Your task to perform on an android device: toggle data saver in the chrome app Image 0: 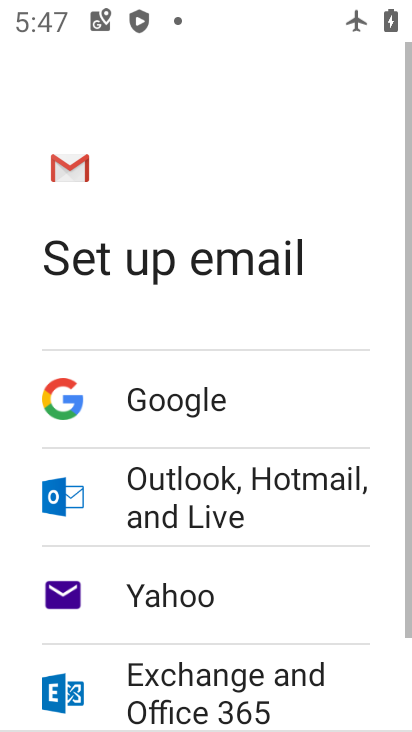
Step 0: press home button
Your task to perform on an android device: toggle data saver in the chrome app Image 1: 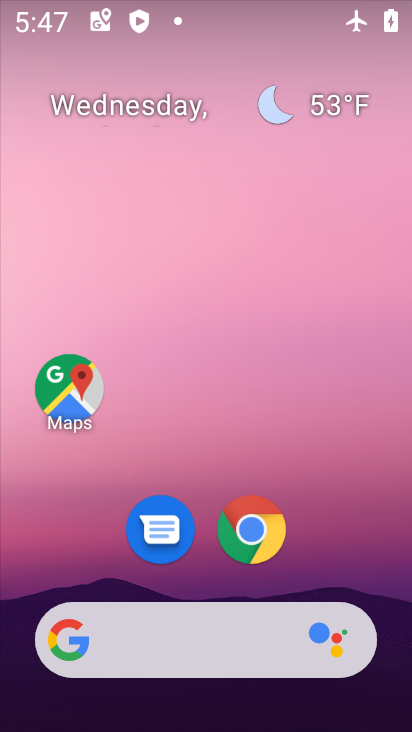
Step 1: drag from (205, 586) to (189, 351)
Your task to perform on an android device: toggle data saver in the chrome app Image 2: 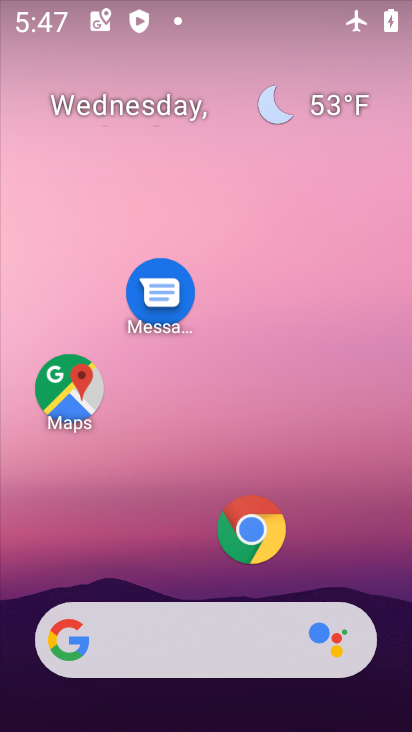
Step 2: click (253, 537)
Your task to perform on an android device: toggle data saver in the chrome app Image 3: 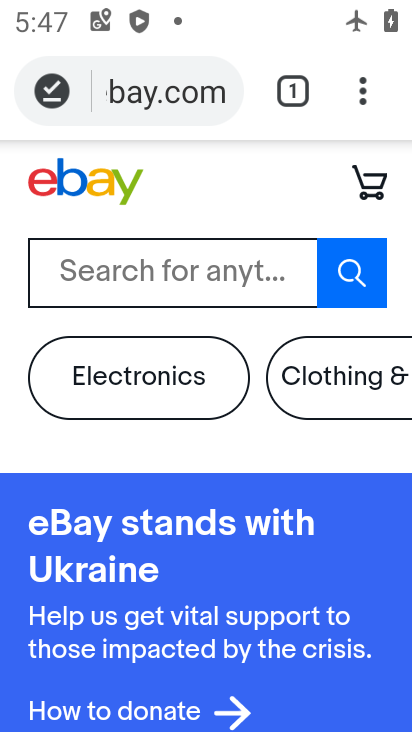
Step 3: click (365, 97)
Your task to perform on an android device: toggle data saver in the chrome app Image 4: 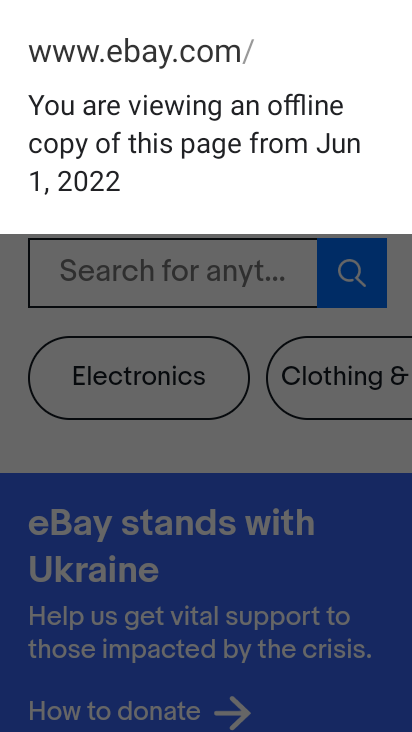
Step 4: click (281, 446)
Your task to perform on an android device: toggle data saver in the chrome app Image 5: 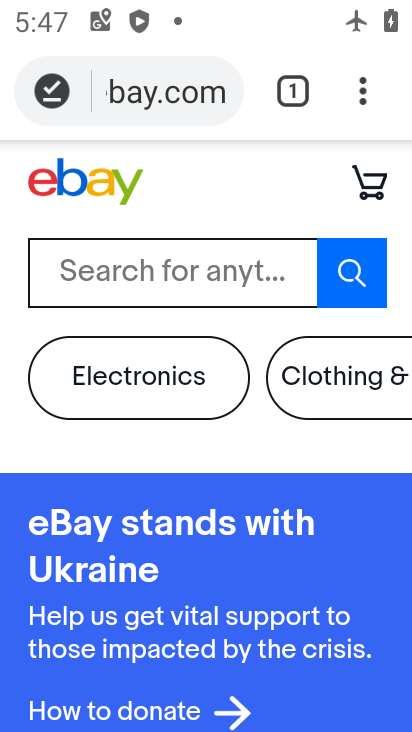
Step 5: click (358, 101)
Your task to perform on an android device: toggle data saver in the chrome app Image 6: 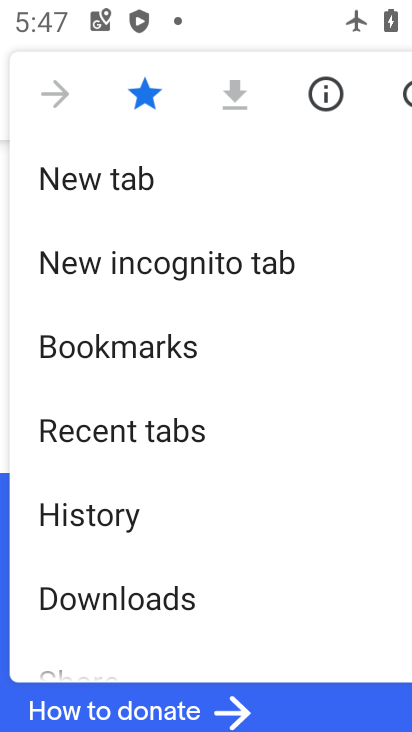
Step 6: drag from (145, 600) to (166, 372)
Your task to perform on an android device: toggle data saver in the chrome app Image 7: 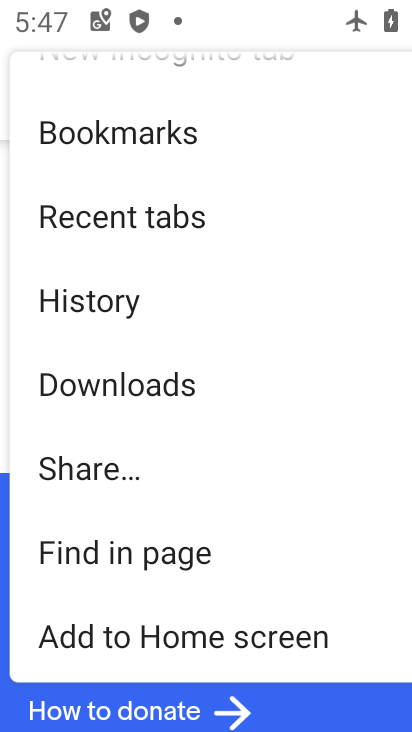
Step 7: drag from (192, 617) to (226, 360)
Your task to perform on an android device: toggle data saver in the chrome app Image 8: 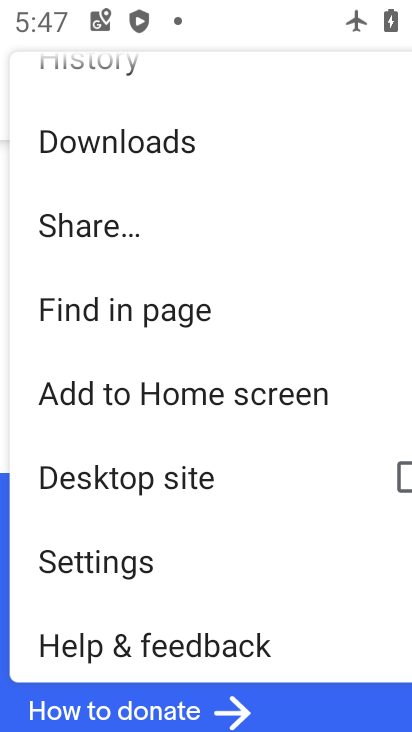
Step 8: click (91, 567)
Your task to perform on an android device: toggle data saver in the chrome app Image 9: 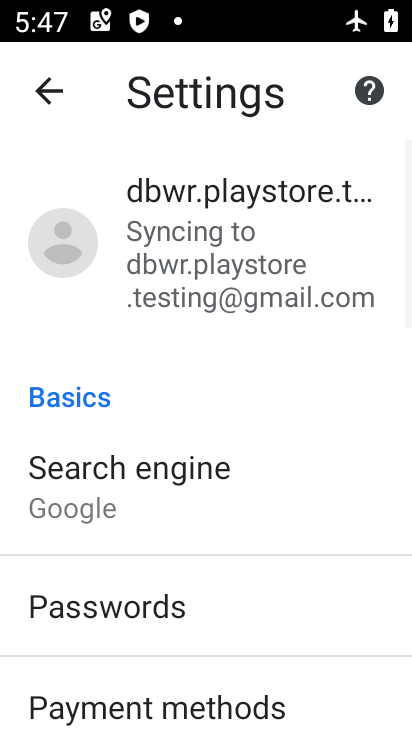
Step 9: drag from (203, 640) to (258, 412)
Your task to perform on an android device: toggle data saver in the chrome app Image 10: 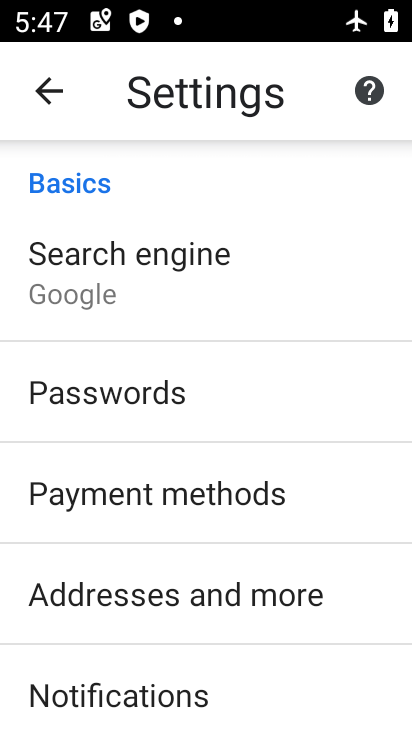
Step 10: drag from (264, 686) to (287, 373)
Your task to perform on an android device: toggle data saver in the chrome app Image 11: 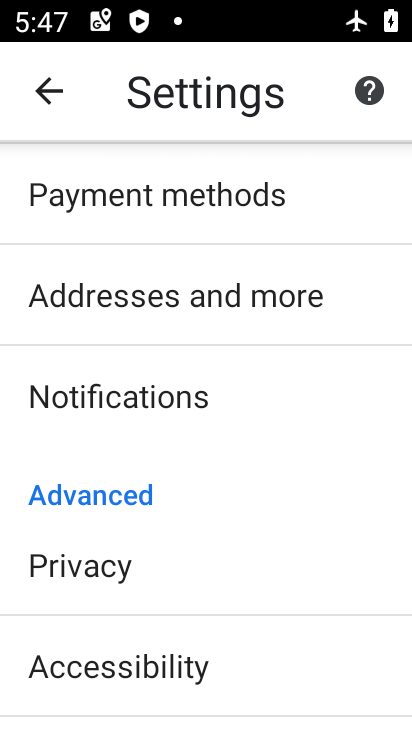
Step 11: drag from (228, 661) to (239, 420)
Your task to perform on an android device: toggle data saver in the chrome app Image 12: 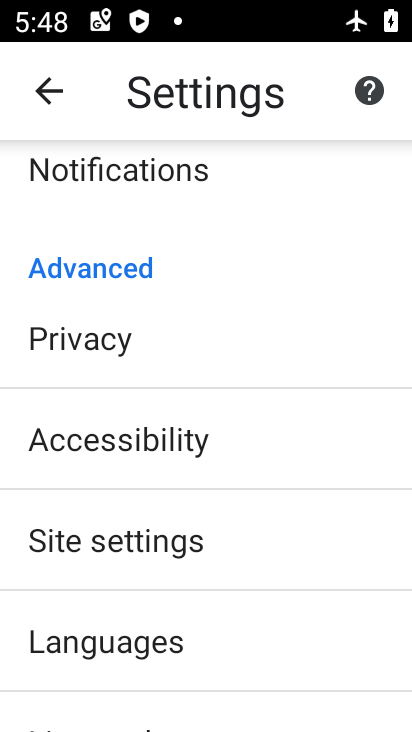
Step 12: drag from (221, 643) to (259, 437)
Your task to perform on an android device: toggle data saver in the chrome app Image 13: 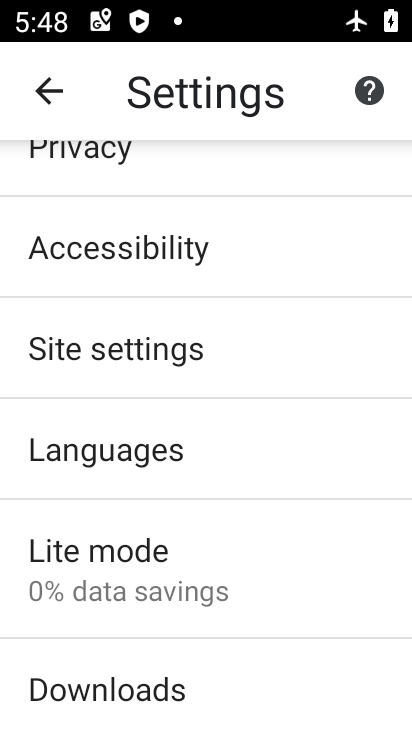
Step 13: click (149, 582)
Your task to perform on an android device: toggle data saver in the chrome app Image 14: 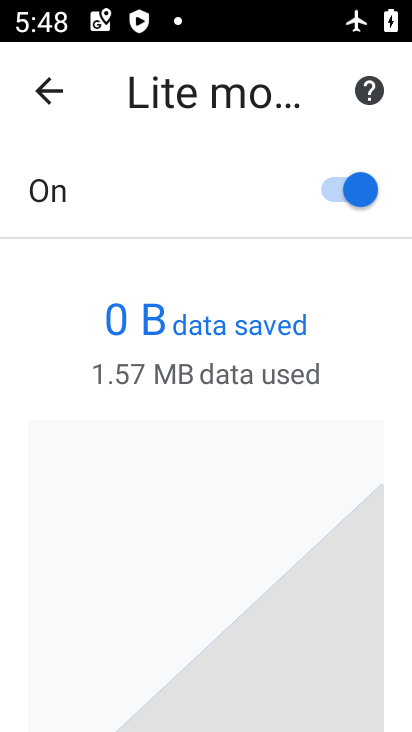
Step 14: click (319, 197)
Your task to perform on an android device: toggle data saver in the chrome app Image 15: 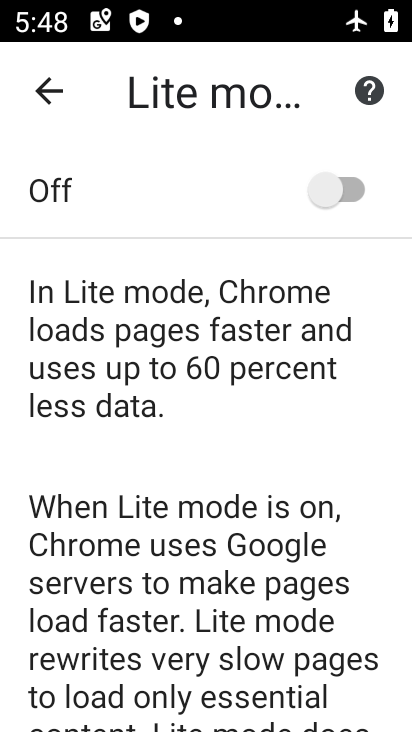
Step 15: task complete